Your task to perform on an android device: turn off notifications in google photos Image 0: 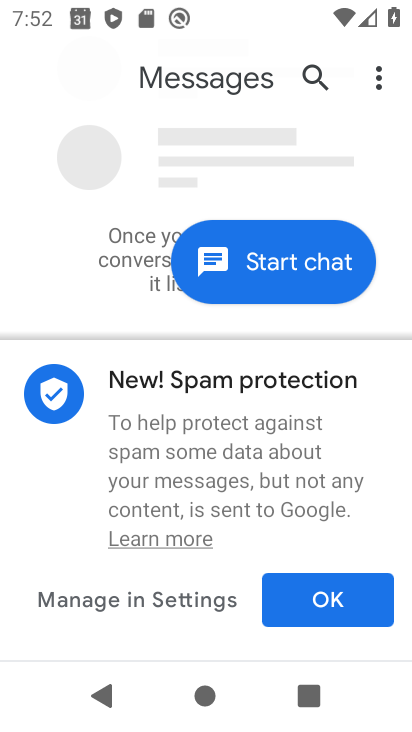
Step 0: press home button
Your task to perform on an android device: turn off notifications in google photos Image 1: 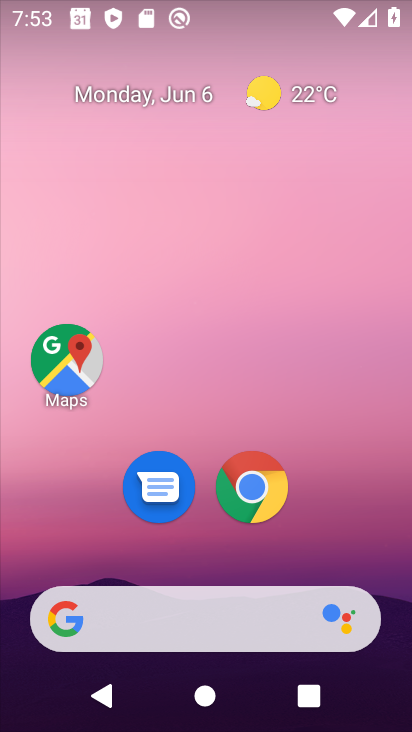
Step 1: drag from (318, 502) to (324, 182)
Your task to perform on an android device: turn off notifications in google photos Image 2: 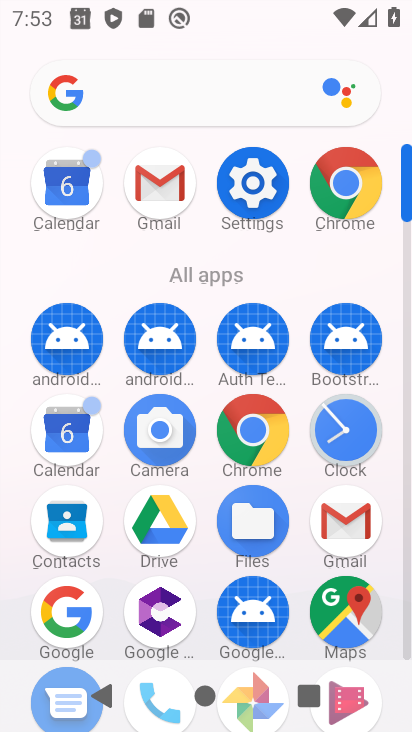
Step 2: drag from (208, 650) to (209, 415)
Your task to perform on an android device: turn off notifications in google photos Image 3: 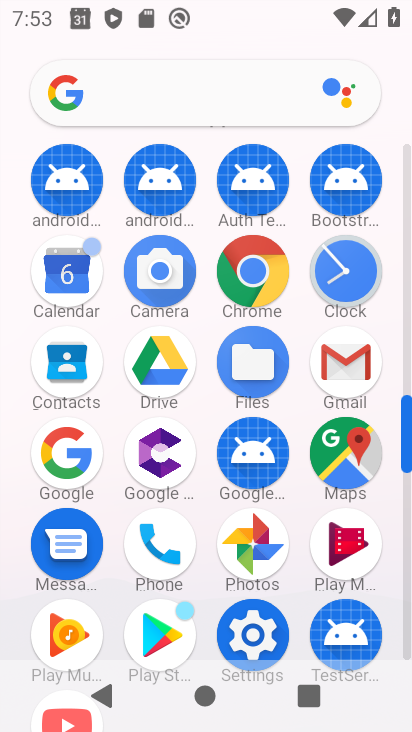
Step 3: click (257, 553)
Your task to perform on an android device: turn off notifications in google photos Image 4: 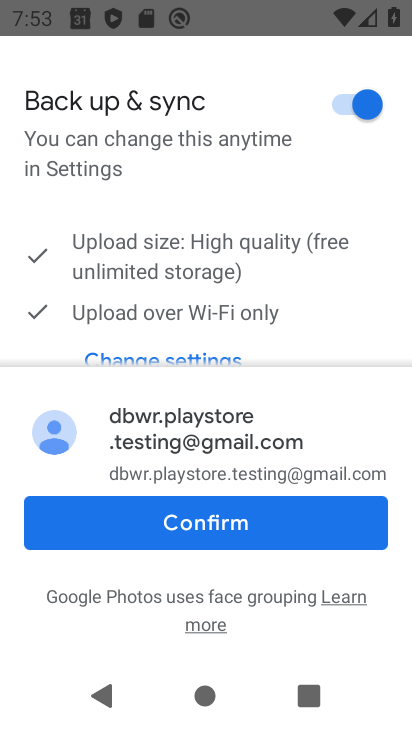
Step 4: click (236, 535)
Your task to perform on an android device: turn off notifications in google photos Image 5: 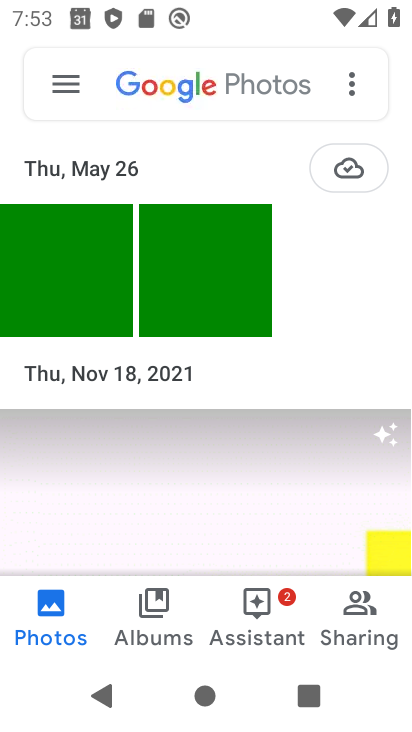
Step 5: click (65, 100)
Your task to perform on an android device: turn off notifications in google photos Image 6: 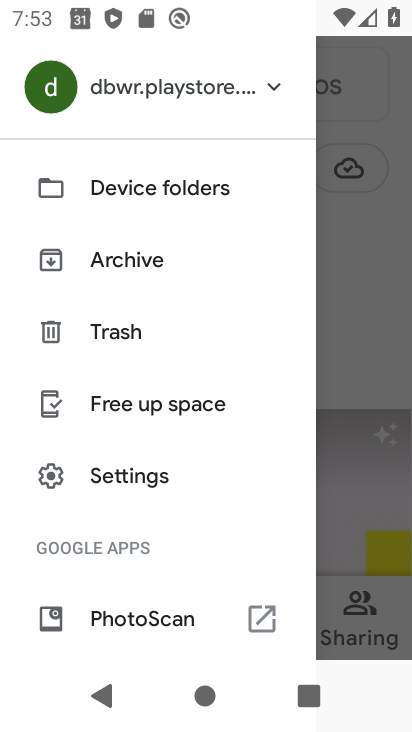
Step 6: click (130, 472)
Your task to perform on an android device: turn off notifications in google photos Image 7: 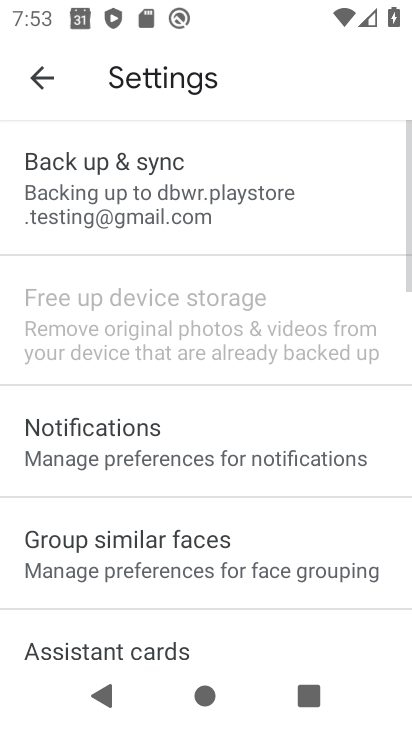
Step 7: click (126, 416)
Your task to perform on an android device: turn off notifications in google photos Image 8: 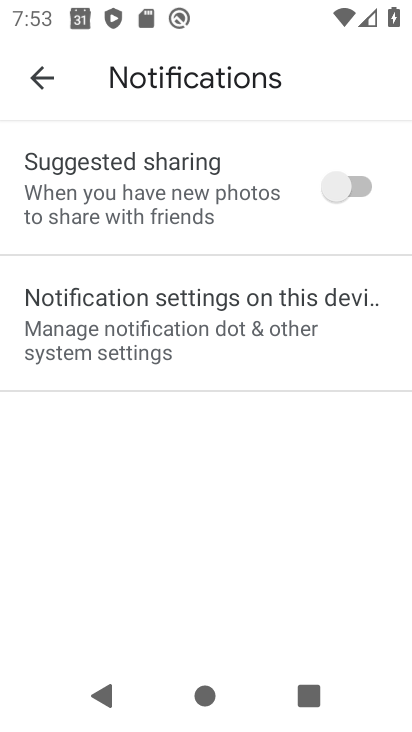
Step 8: click (144, 317)
Your task to perform on an android device: turn off notifications in google photos Image 9: 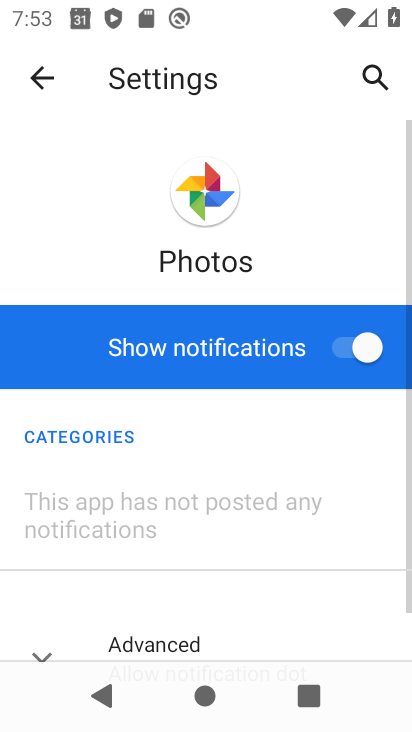
Step 9: click (368, 348)
Your task to perform on an android device: turn off notifications in google photos Image 10: 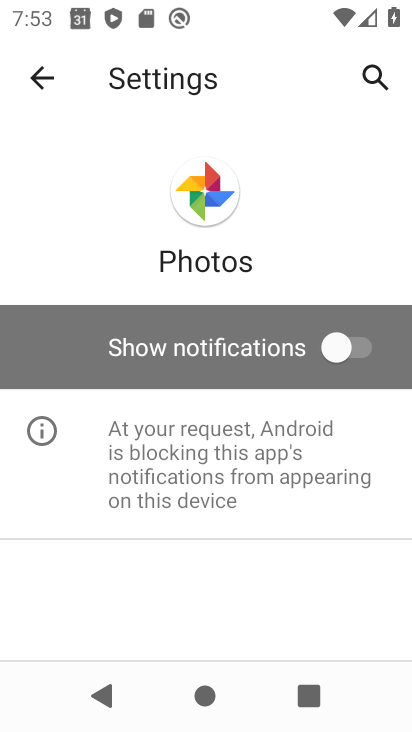
Step 10: task complete